Your task to perform on an android device: turn off javascript in the chrome app Image 0: 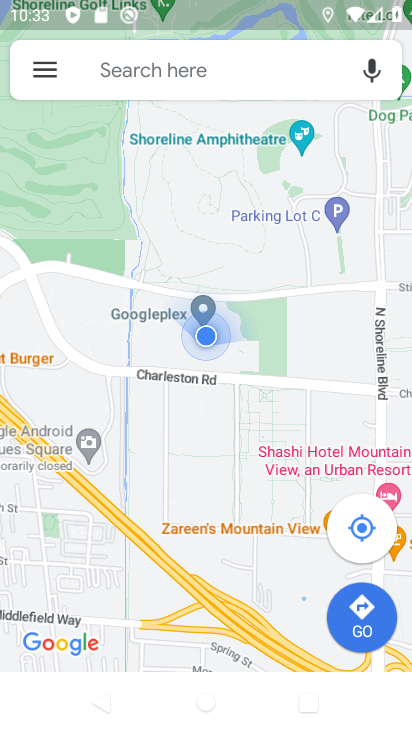
Step 0: press home button
Your task to perform on an android device: turn off javascript in the chrome app Image 1: 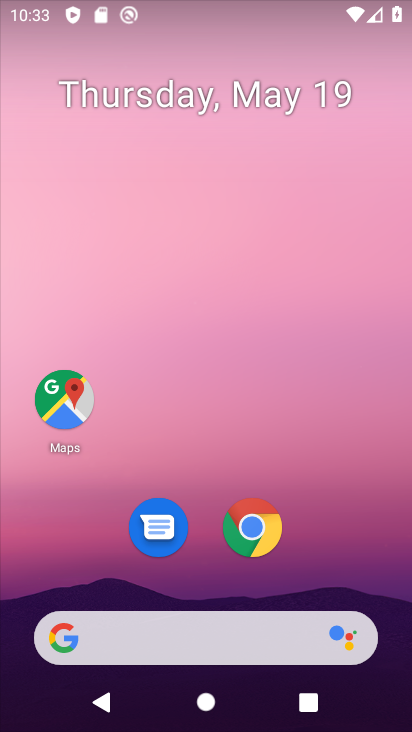
Step 1: drag from (200, 581) to (211, 198)
Your task to perform on an android device: turn off javascript in the chrome app Image 2: 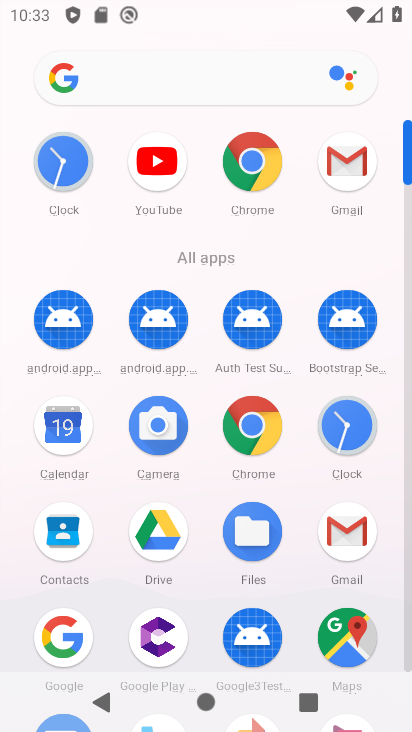
Step 2: click (256, 168)
Your task to perform on an android device: turn off javascript in the chrome app Image 3: 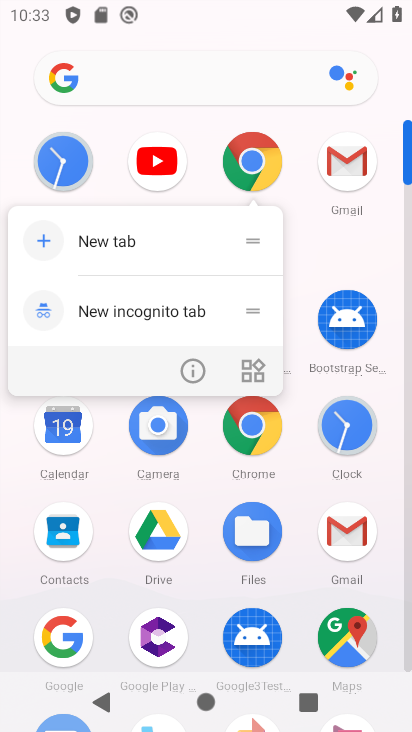
Step 3: click (258, 170)
Your task to perform on an android device: turn off javascript in the chrome app Image 4: 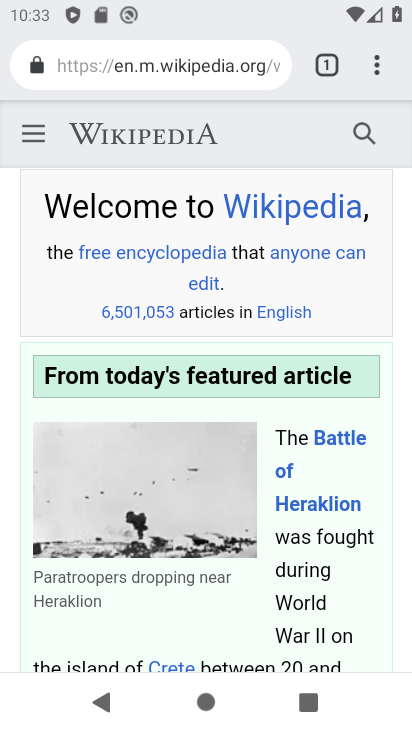
Step 4: click (378, 68)
Your task to perform on an android device: turn off javascript in the chrome app Image 5: 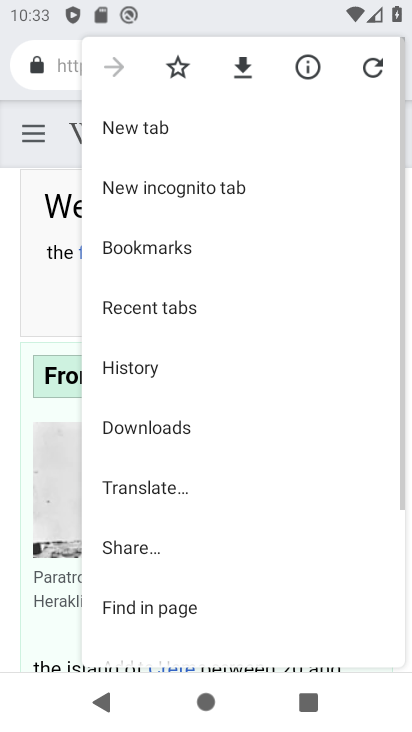
Step 5: drag from (168, 563) to (198, 245)
Your task to perform on an android device: turn off javascript in the chrome app Image 6: 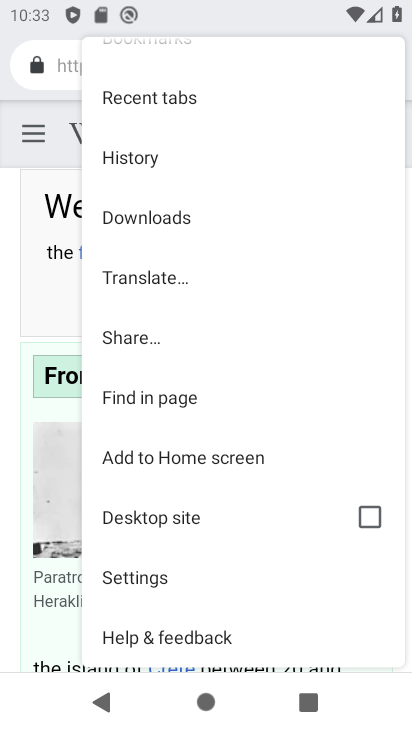
Step 6: click (145, 580)
Your task to perform on an android device: turn off javascript in the chrome app Image 7: 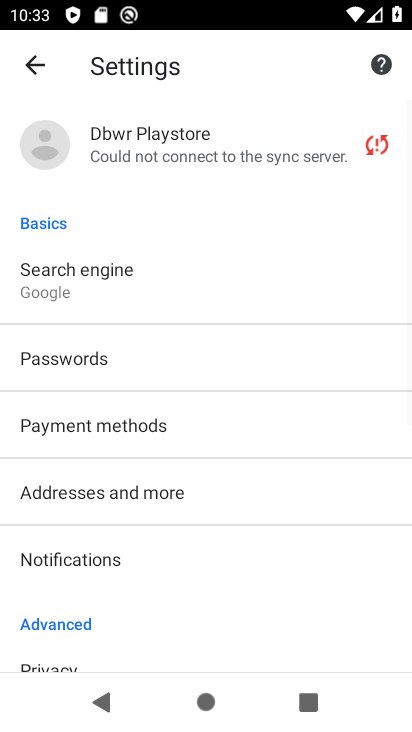
Step 7: drag from (124, 591) to (167, 299)
Your task to perform on an android device: turn off javascript in the chrome app Image 8: 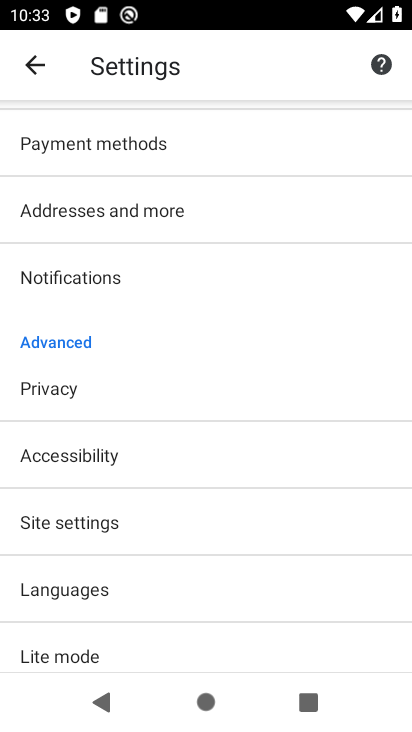
Step 8: click (105, 525)
Your task to perform on an android device: turn off javascript in the chrome app Image 9: 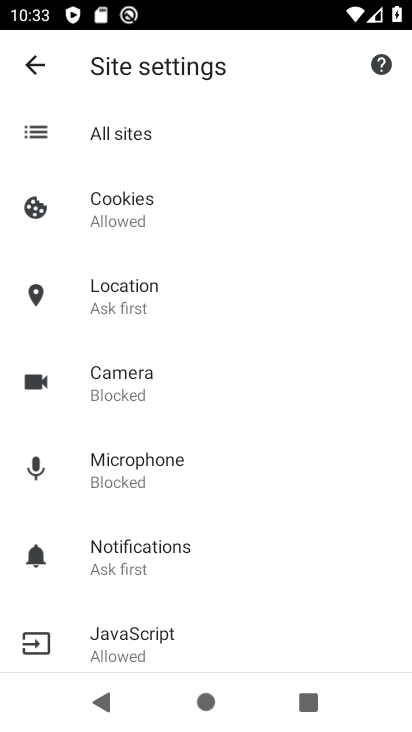
Step 9: click (158, 634)
Your task to perform on an android device: turn off javascript in the chrome app Image 10: 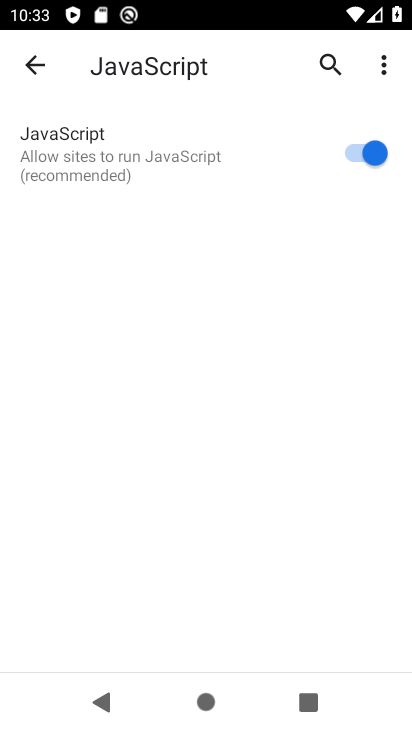
Step 10: click (345, 154)
Your task to perform on an android device: turn off javascript in the chrome app Image 11: 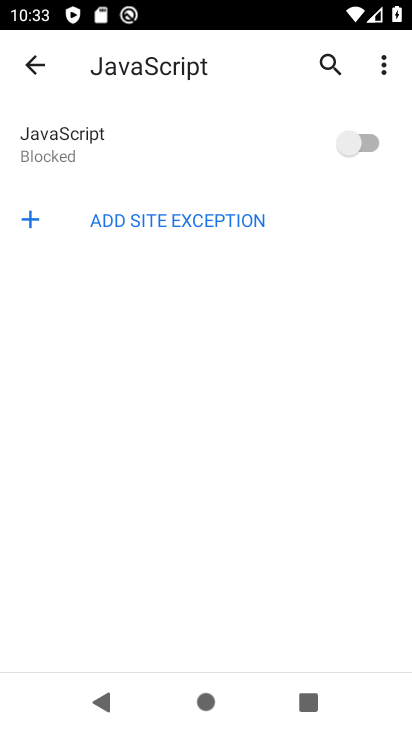
Step 11: task complete